Your task to perform on an android device: Go to location settings Image 0: 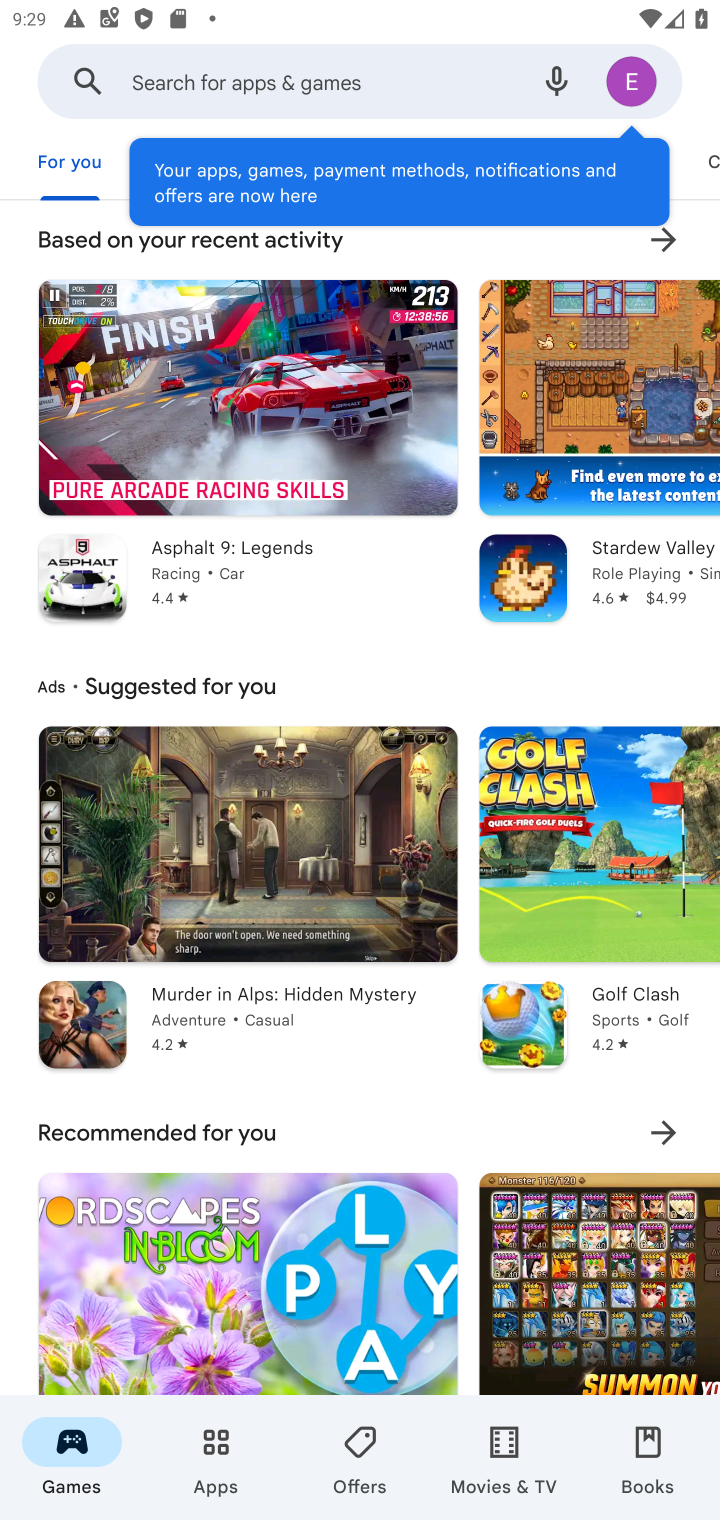
Step 0: task complete